Your task to perform on an android device: Open my contact list Image 0: 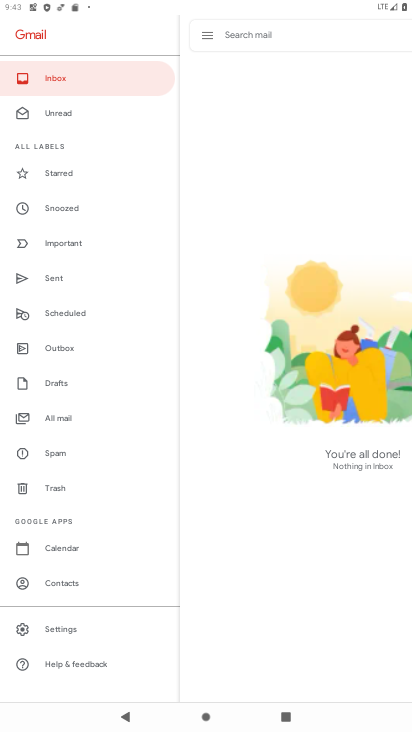
Step 0: press home button
Your task to perform on an android device: Open my contact list Image 1: 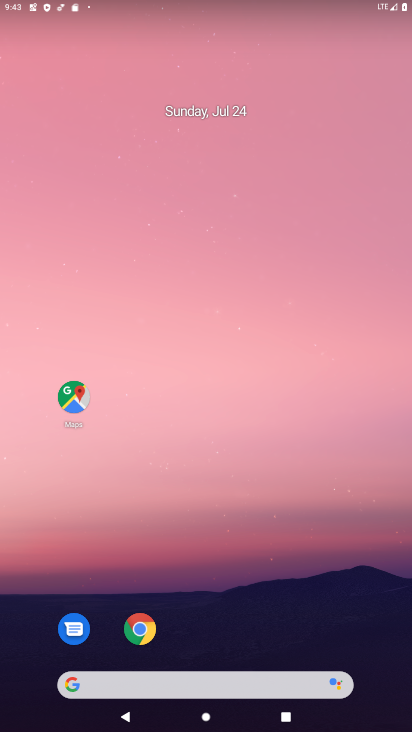
Step 1: drag from (279, 638) to (269, 143)
Your task to perform on an android device: Open my contact list Image 2: 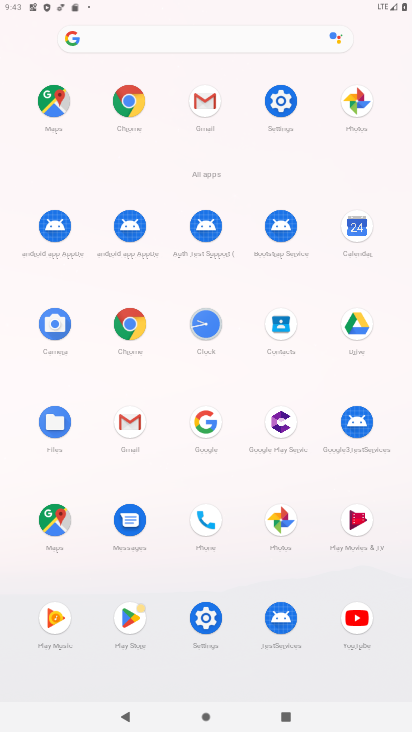
Step 2: click (277, 322)
Your task to perform on an android device: Open my contact list Image 3: 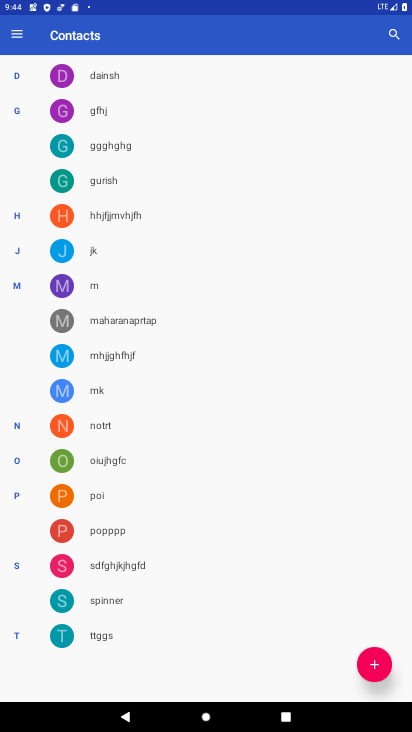
Step 3: task complete